Your task to perform on an android device: Search for flights from Tokyo to NYC Image 0: 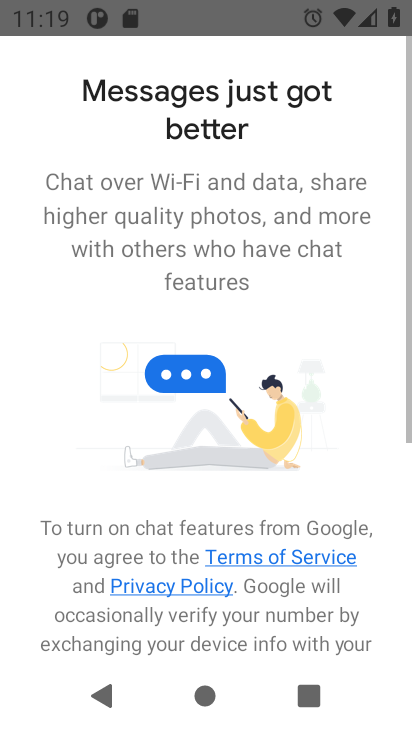
Step 0: press home button
Your task to perform on an android device: Search for flights from Tokyo to NYC Image 1: 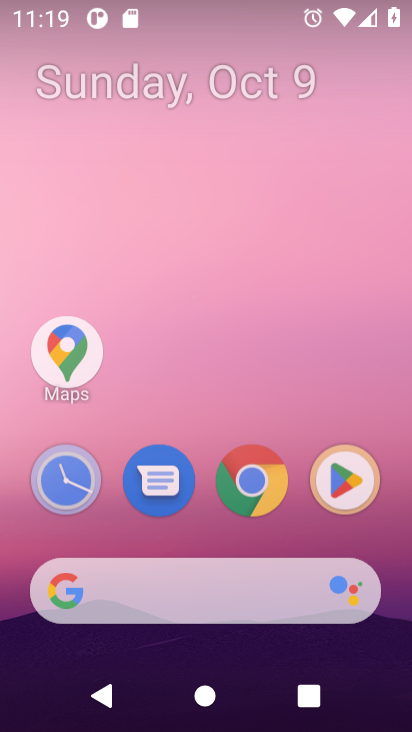
Step 1: press home button
Your task to perform on an android device: Search for flights from Tokyo to NYC Image 2: 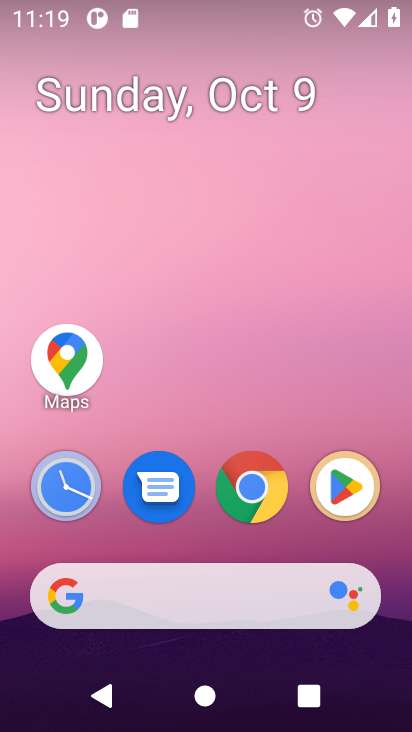
Step 2: drag from (204, 539) to (187, 25)
Your task to perform on an android device: Search for flights from Tokyo to NYC Image 3: 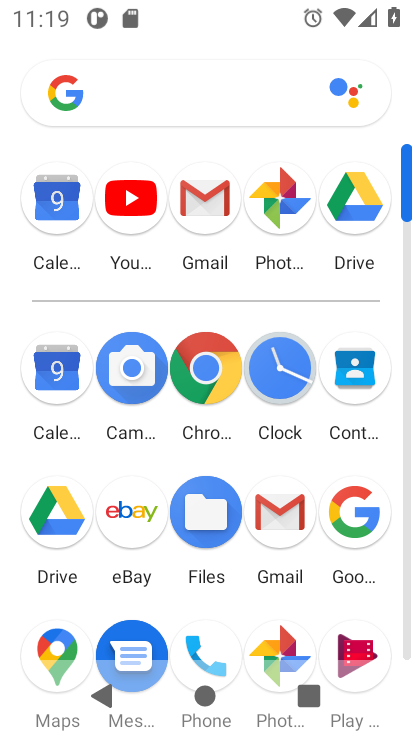
Step 3: click (357, 514)
Your task to perform on an android device: Search for flights from Tokyo to NYC Image 4: 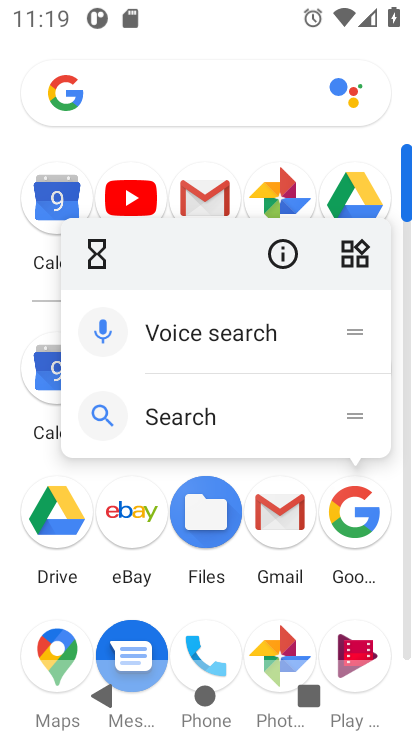
Step 4: click (357, 514)
Your task to perform on an android device: Search for flights from Tokyo to NYC Image 5: 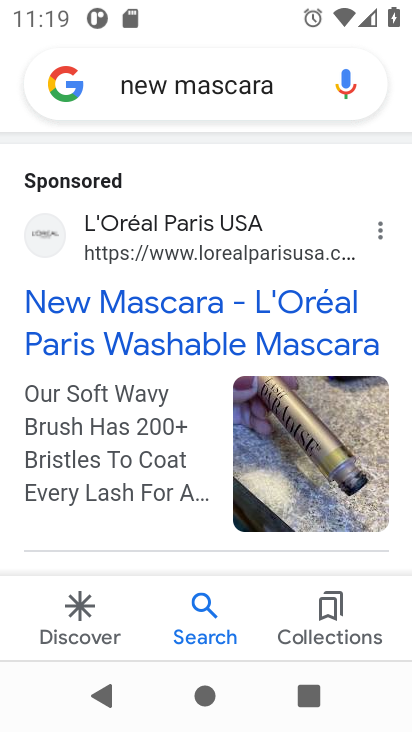
Step 5: click (193, 68)
Your task to perform on an android device: Search for flights from Tokyo to NYC Image 6: 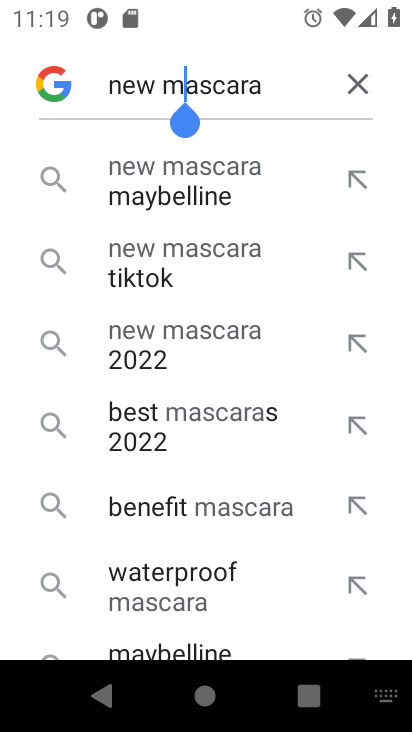
Step 6: click (362, 72)
Your task to perform on an android device: Search for flights from Tokyo to NYC Image 7: 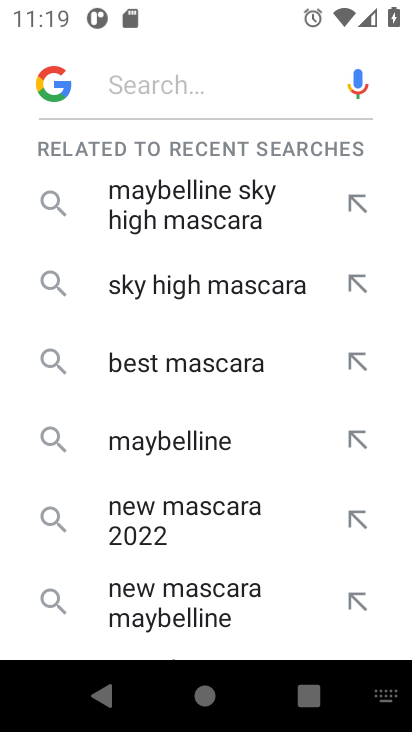
Step 7: type "flights from Tokyo to NYC"
Your task to perform on an android device: Search for flights from Tokyo to NYC Image 8: 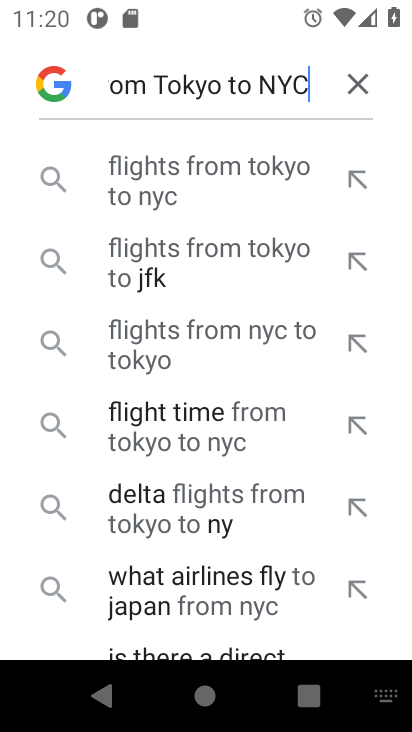
Step 8: click (254, 160)
Your task to perform on an android device: Search for flights from Tokyo to NYC Image 9: 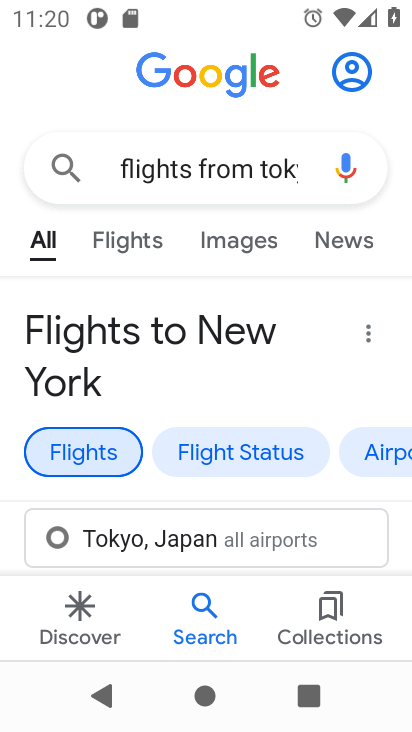
Step 9: task complete